Your task to perform on an android device: turn off location history Image 0: 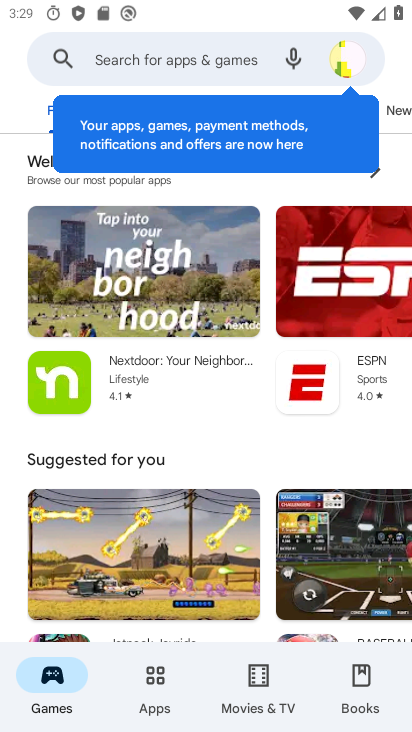
Step 0: press back button
Your task to perform on an android device: turn off location history Image 1: 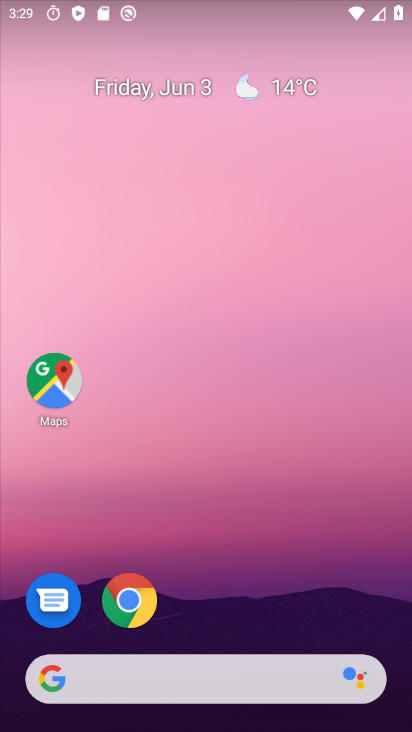
Step 1: drag from (222, 570) to (192, 26)
Your task to perform on an android device: turn off location history Image 2: 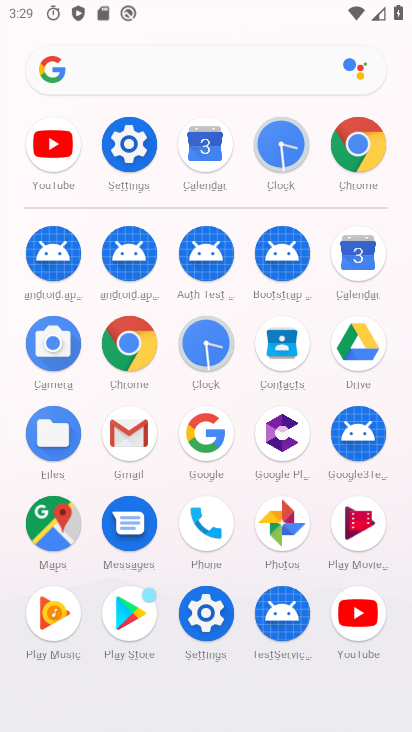
Step 2: drag from (16, 564) to (9, 225)
Your task to perform on an android device: turn off location history Image 3: 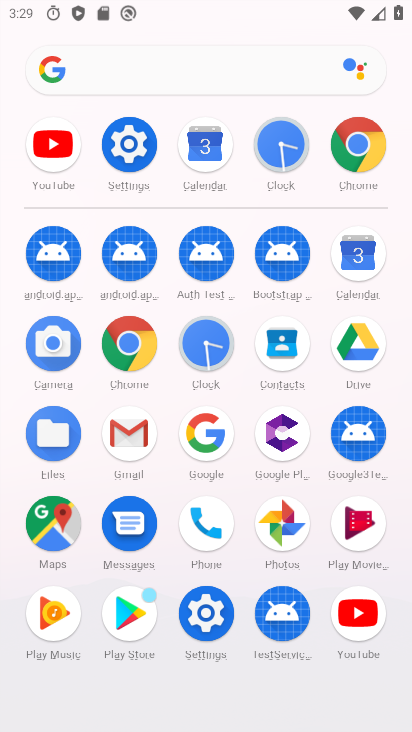
Step 3: click (204, 608)
Your task to perform on an android device: turn off location history Image 4: 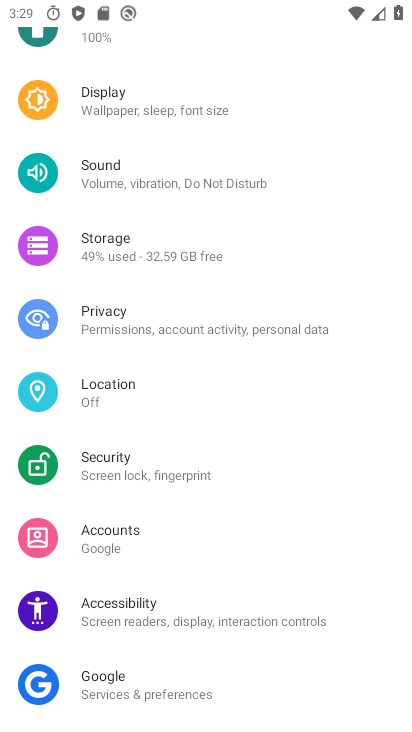
Step 4: drag from (213, 293) to (188, 553)
Your task to perform on an android device: turn off location history Image 5: 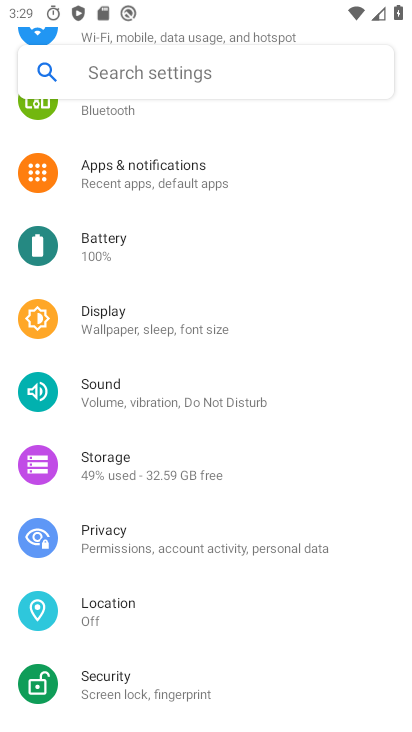
Step 5: drag from (232, 172) to (248, 551)
Your task to perform on an android device: turn off location history Image 6: 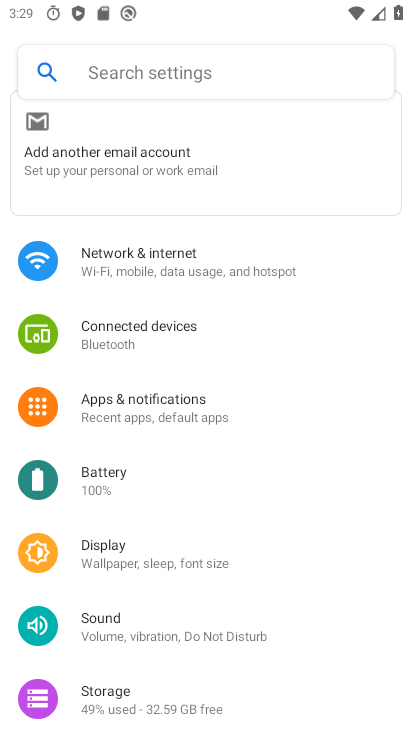
Step 6: drag from (245, 551) to (290, 184)
Your task to perform on an android device: turn off location history Image 7: 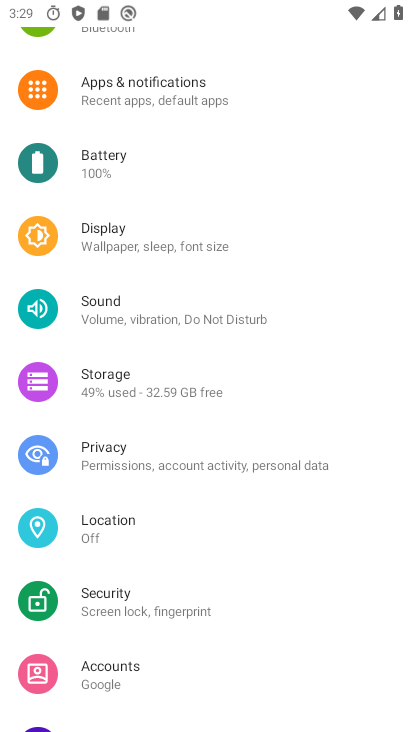
Step 7: drag from (249, 500) to (264, 161)
Your task to perform on an android device: turn off location history Image 8: 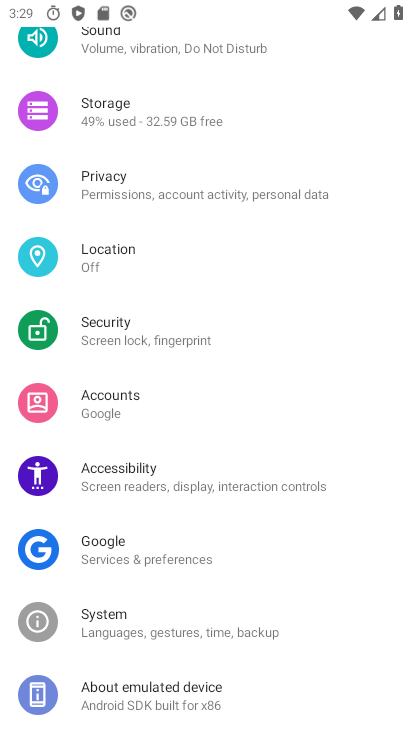
Step 8: click (138, 253)
Your task to perform on an android device: turn off location history Image 9: 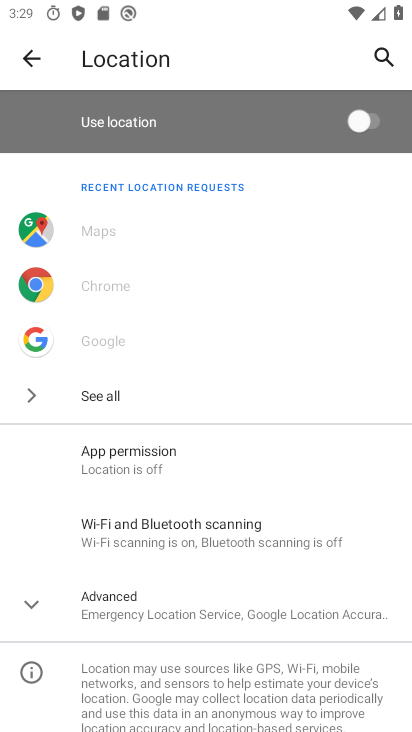
Step 9: click (44, 605)
Your task to perform on an android device: turn off location history Image 10: 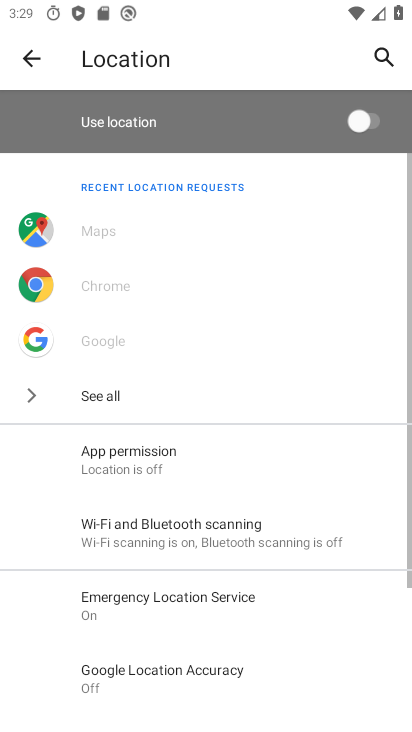
Step 10: drag from (235, 604) to (282, 152)
Your task to perform on an android device: turn off location history Image 11: 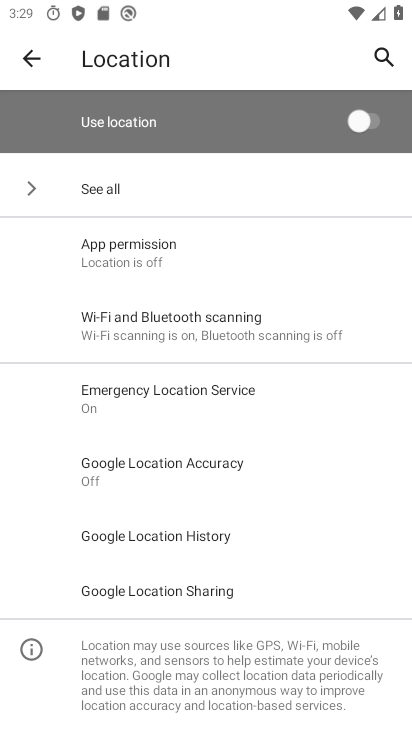
Step 11: click (207, 530)
Your task to perform on an android device: turn off location history Image 12: 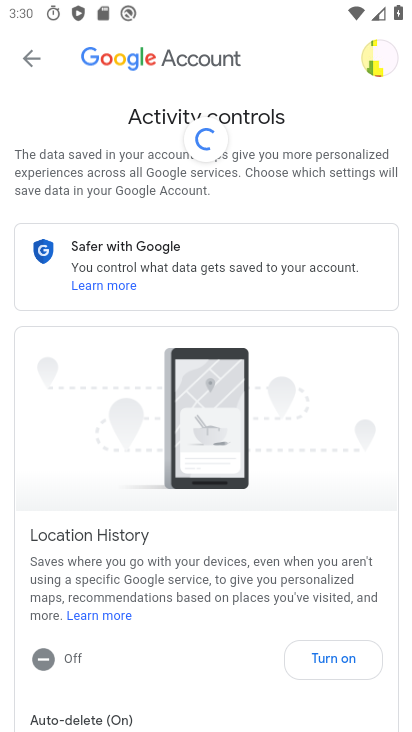
Step 12: task complete